Your task to perform on an android device: Go to accessibility settings Image 0: 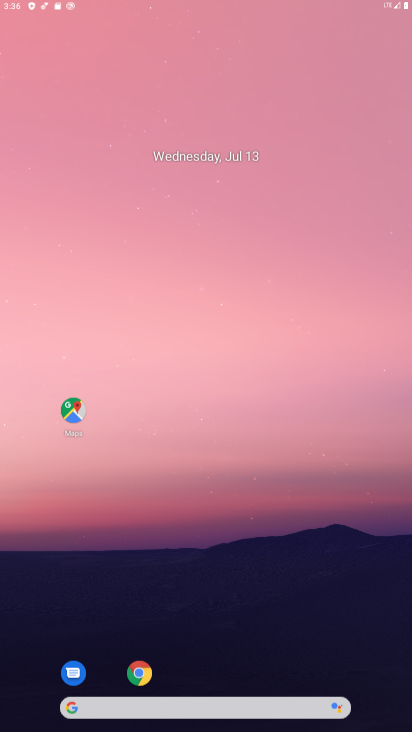
Step 0: drag from (205, 706) to (229, 103)
Your task to perform on an android device: Go to accessibility settings Image 1: 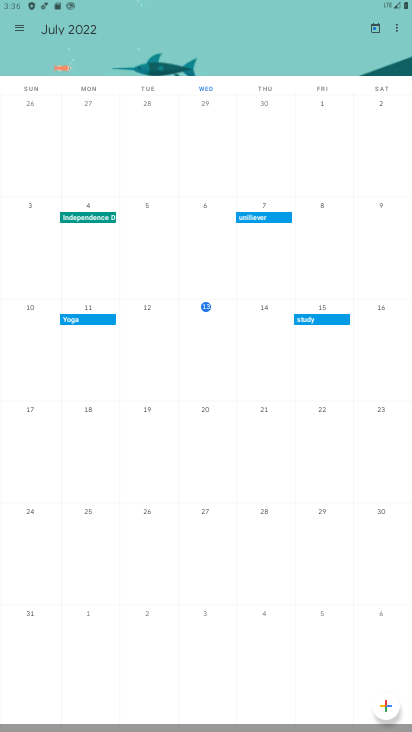
Step 1: press home button
Your task to perform on an android device: Go to accessibility settings Image 2: 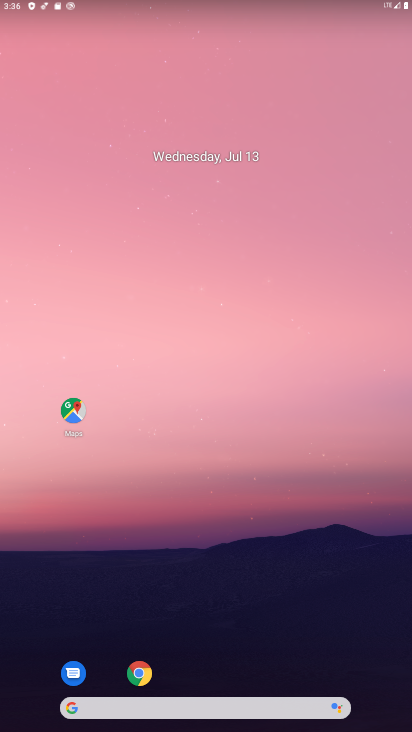
Step 2: drag from (215, 700) to (233, 149)
Your task to perform on an android device: Go to accessibility settings Image 3: 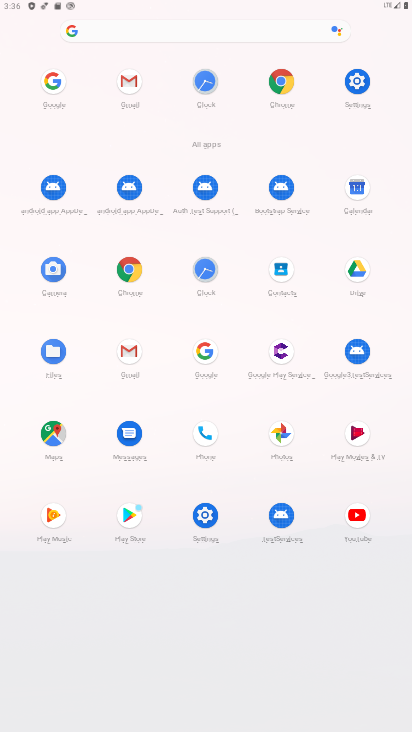
Step 3: click (357, 82)
Your task to perform on an android device: Go to accessibility settings Image 4: 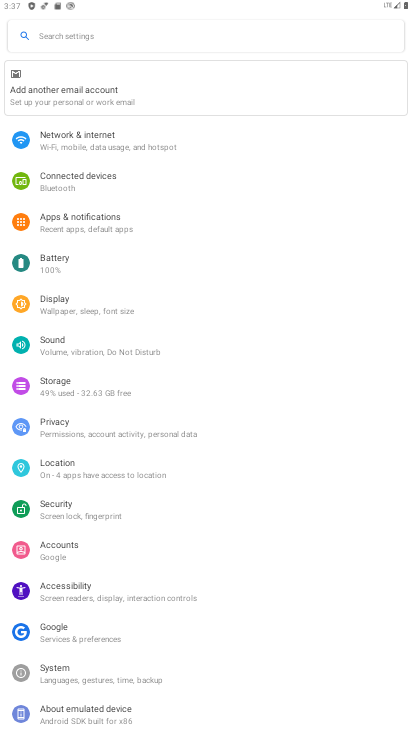
Step 4: click (77, 593)
Your task to perform on an android device: Go to accessibility settings Image 5: 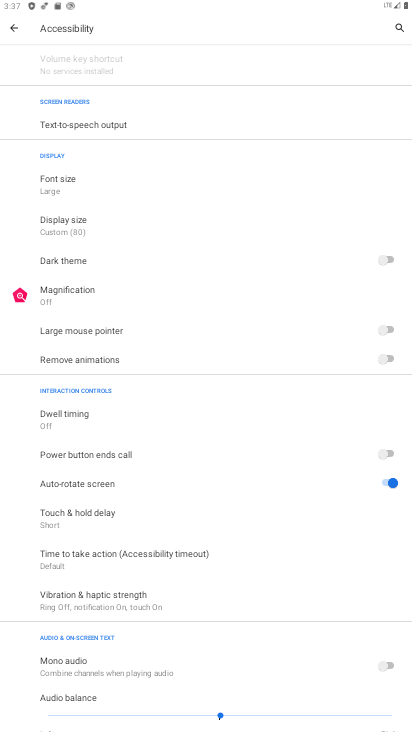
Step 5: task complete